Your task to perform on an android device: Go to notification settings Image 0: 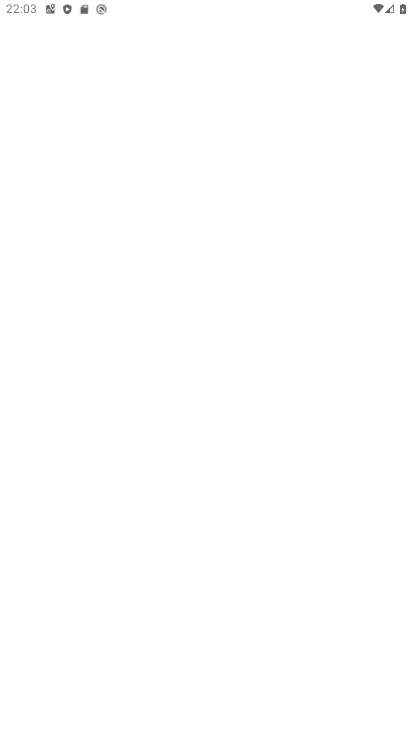
Step 0: click (129, 647)
Your task to perform on an android device: Go to notification settings Image 1: 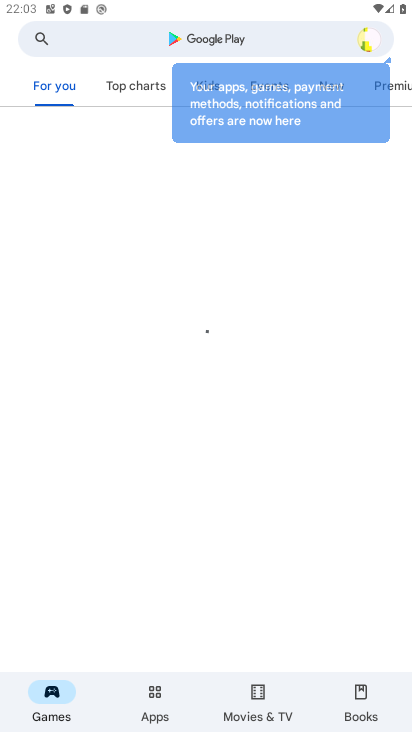
Step 1: press home button
Your task to perform on an android device: Go to notification settings Image 2: 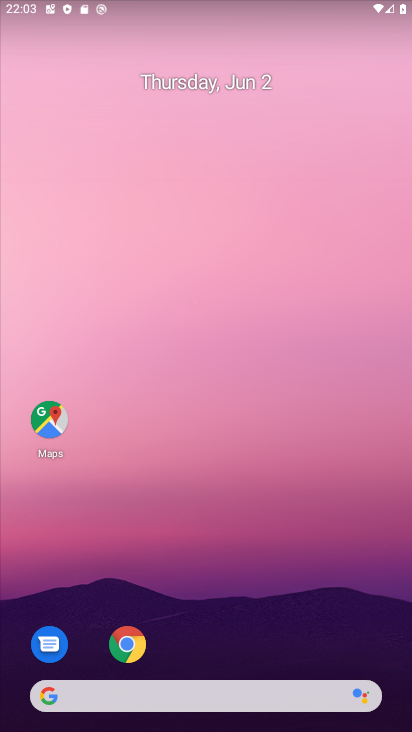
Step 2: drag from (182, 659) to (190, 262)
Your task to perform on an android device: Go to notification settings Image 3: 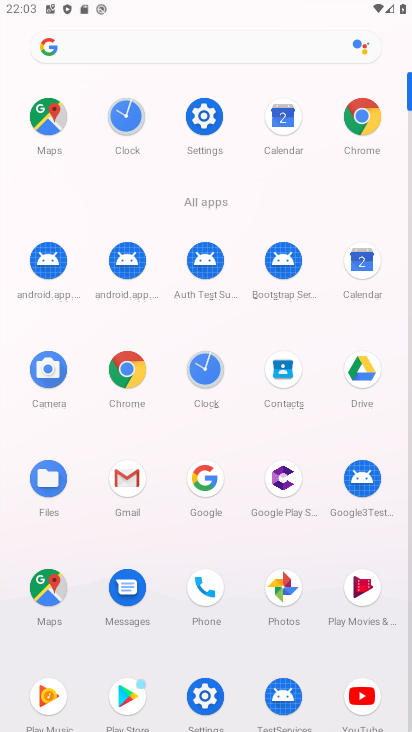
Step 3: click (194, 134)
Your task to perform on an android device: Go to notification settings Image 4: 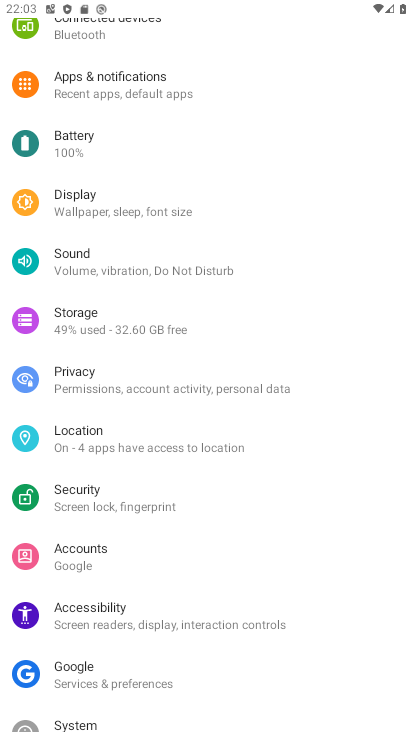
Step 4: click (130, 91)
Your task to perform on an android device: Go to notification settings Image 5: 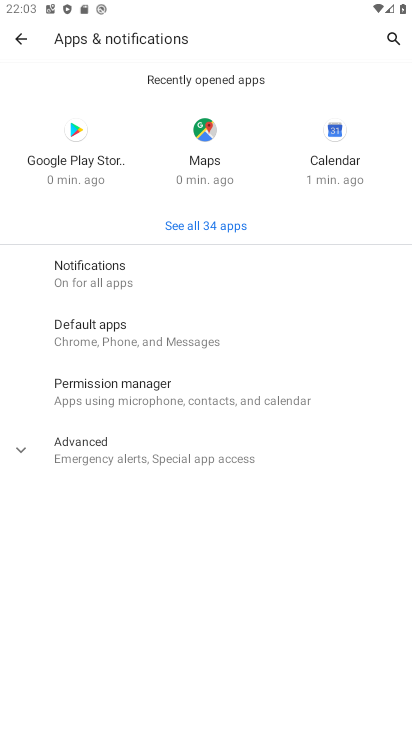
Step 5: click (89, 268)
Your task to perform on an android device: Go to notification settings Image 6: 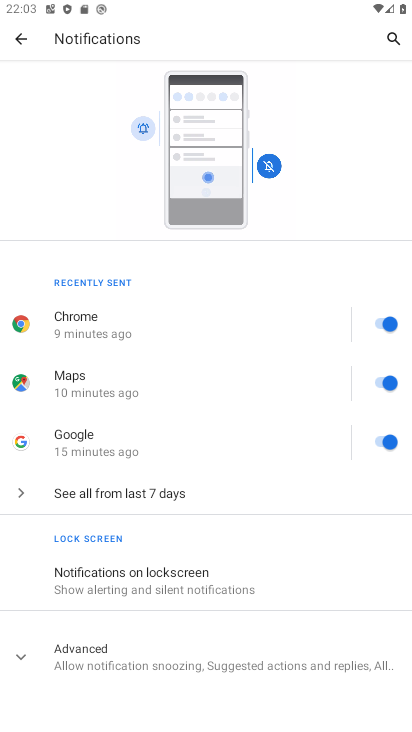
Step 6: task complete